Your task to perform on an android device: Open Yahoo.com Image 0: 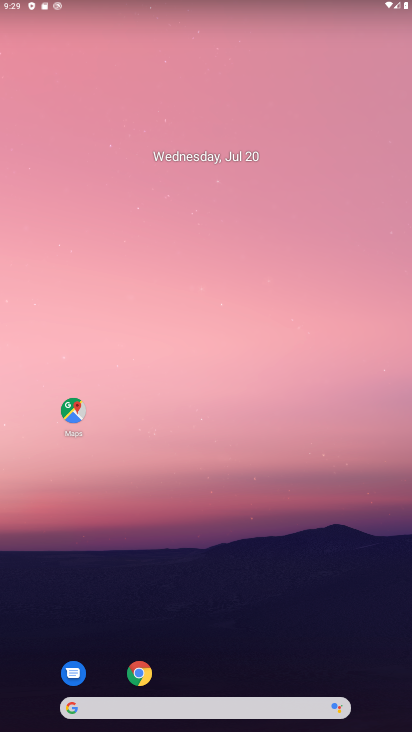
Step 0: click (140, 674)
Your task to perform on an android device: Open Yahoo.com Image 1: 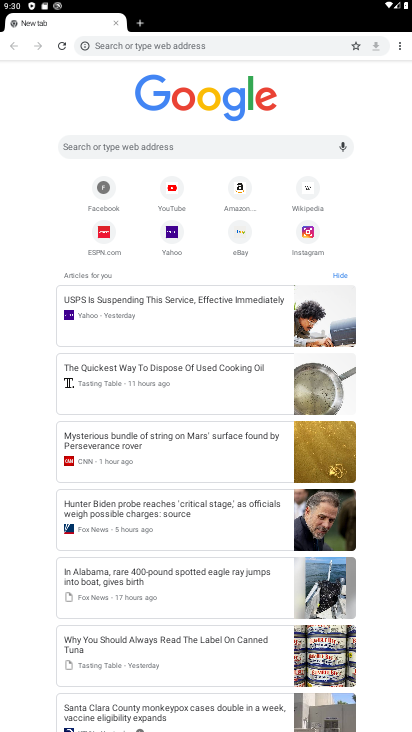
Step 1: click (171, 233)
Your task to perform on an android device: Open Yahoo.com Image 2: 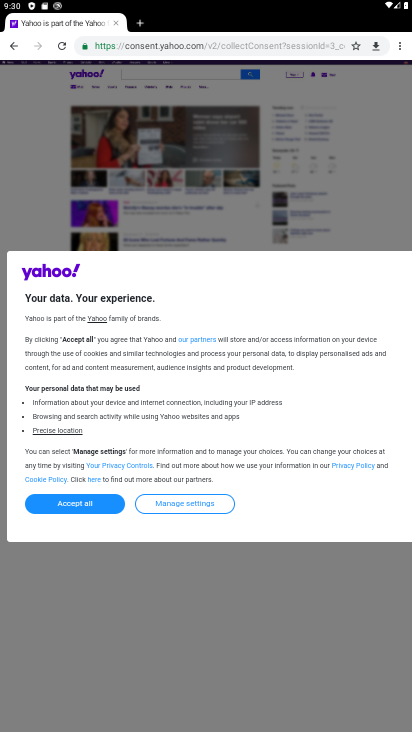
Step 2: click (83, 500)
Your task to perform on an android device: Open Yahoo.com Image 3: 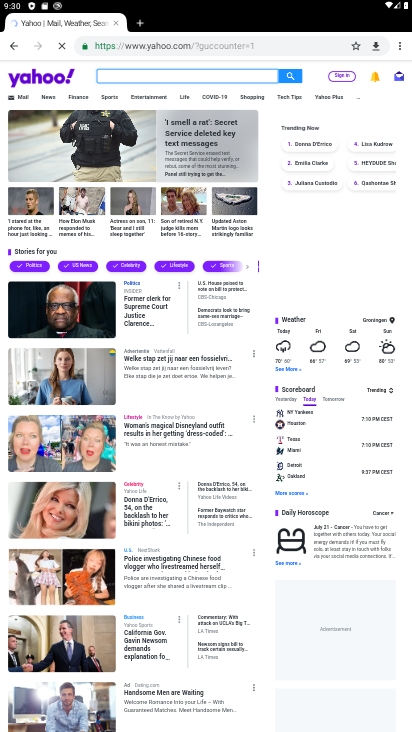
Step 3: task complete